Your task to perform on an android device: Open Yahoo.com Image 0: 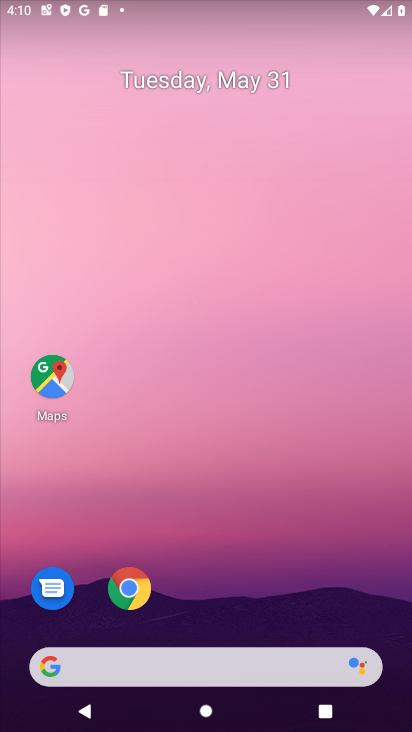
Step 0: click (133, 590)
Your task to perform on an android device: Open Yahoo.com Image 1: 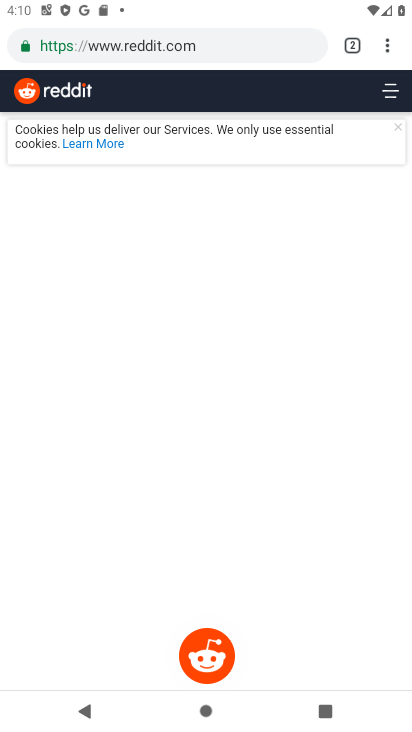
Step 1: click (355, 47)
Your task to perform on an android device: Open Yahoo.com Image 2: 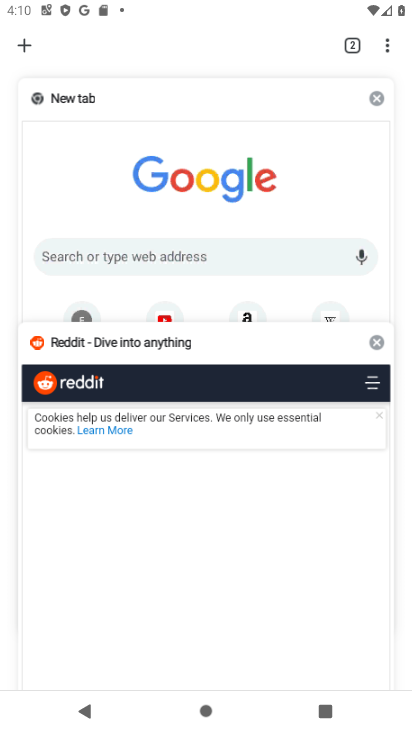
Step 2: click (24, 49)
Your task to perform on an android device: Open Yahoo.com Image 3: 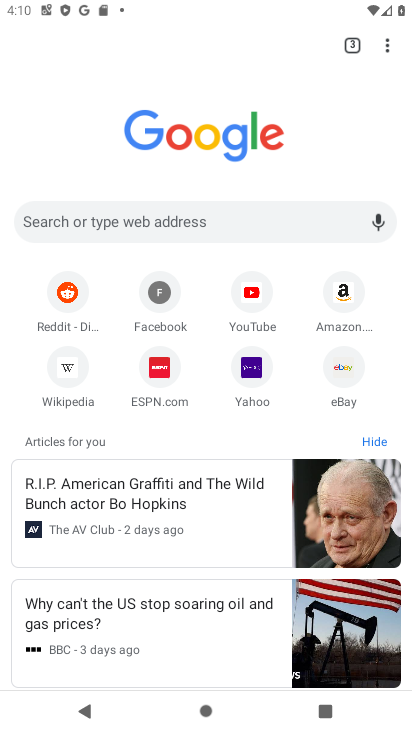
Step 3: click (252, 354)
Your task to perform on an android device: Open Yahoo.com Image 4: 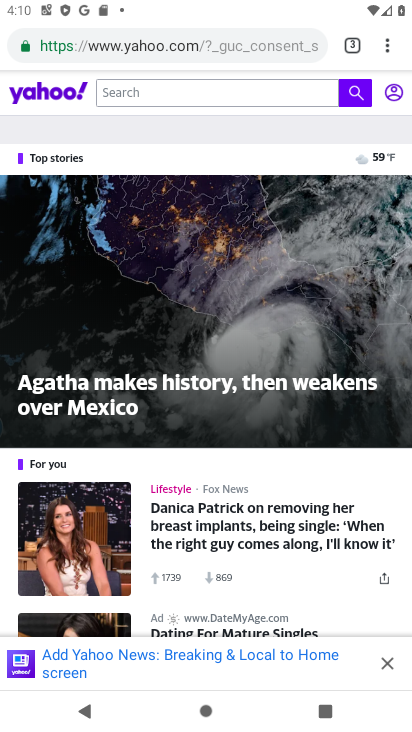
Step 4: task complete